Your task to perform on an android device: Do I have any events tomorrow? Image 0: 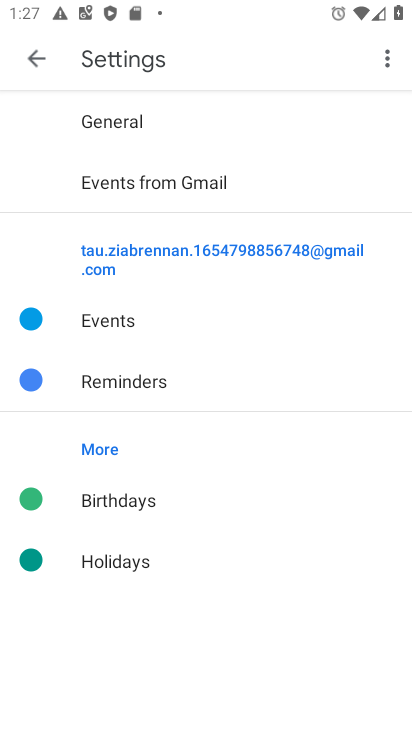
Step 0: press home button
Your task to perform on an android device: Do I have any events tomorrow? Image 1: 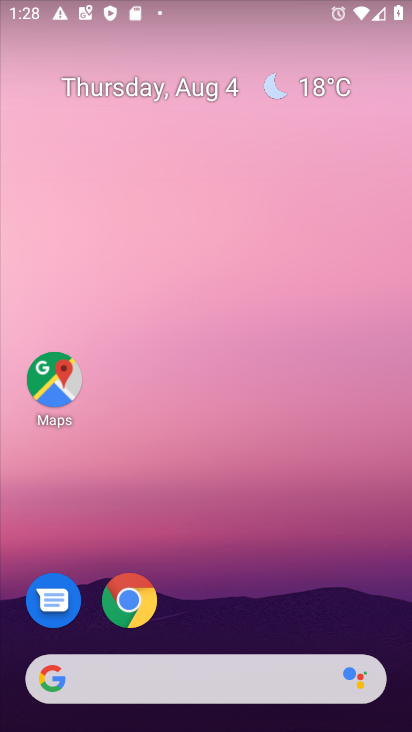
Step 1: drag from (152, 662) to (282, 154)
Your task to perform on an android device: Do I have any events tomorrow? Image 2: 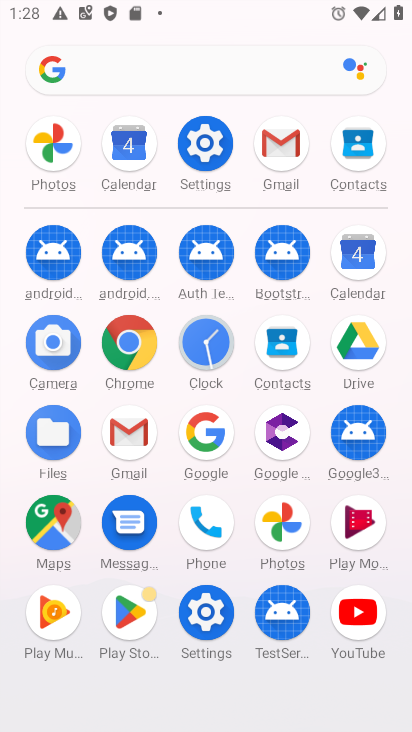
Step 2: click (358, 253)
Your task to perform on an android device: Do I have any events tomorrow? Image 3: 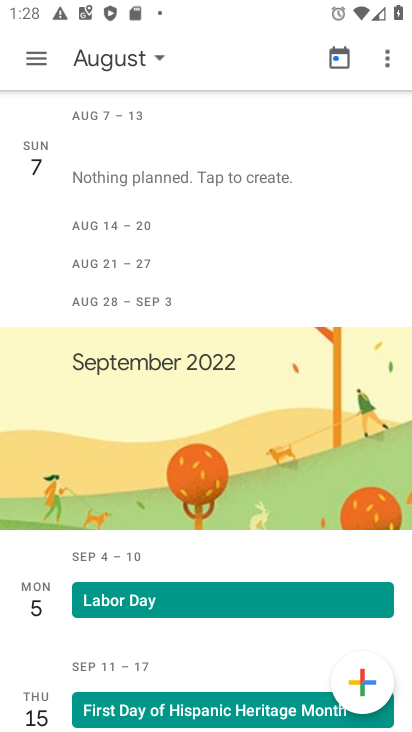
Step 3: click (104, 62)
Your task to perform on an android device: Do I have any events tomorrow? Image 4: 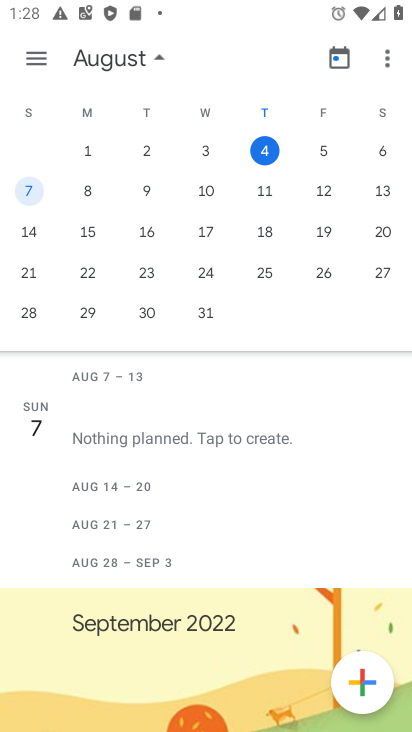
Step 4: click (324, 147)
Your task to perform on an android device: Do I have any events tomorrow? Image 5: 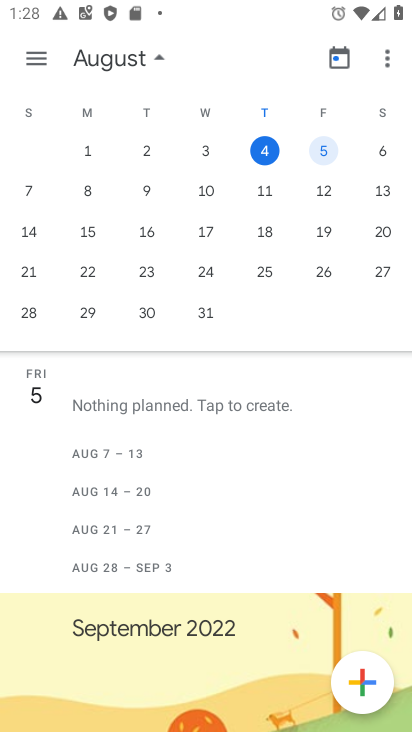
Step 5: click (36, 52)
Your task to perform on an android device: Do I have any events tomorrow? Image 6: 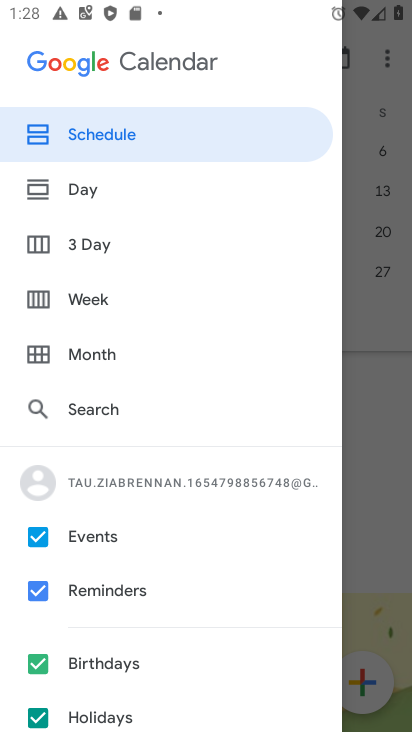
Step 6: click (69, 186)
Your task to perform on an android device: Do I have any events tomorrow? Image 7: 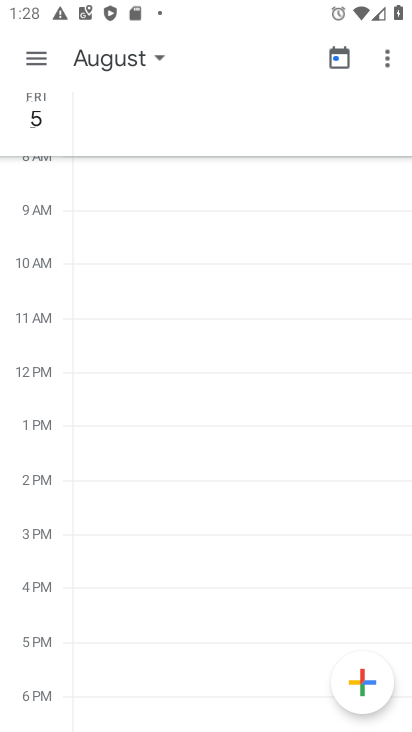
Step 7: click (36, 54)
Your task to perform on an android device: Do I have any events tomorrow? Image 8: 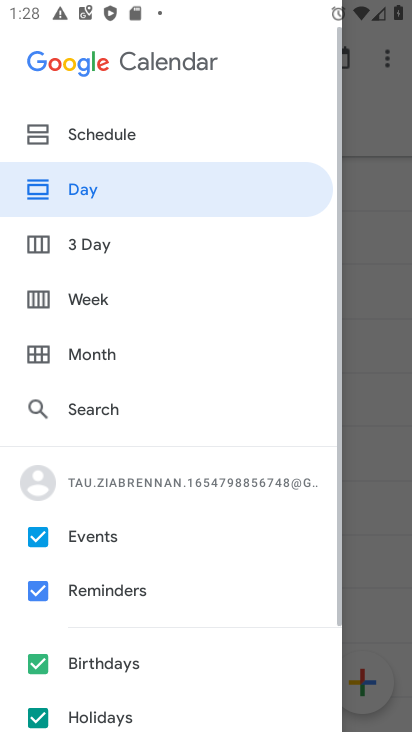
Step 8: click (108, 140)
Your task to perform on an android device: Do I have any events tomorrow? Image 9: 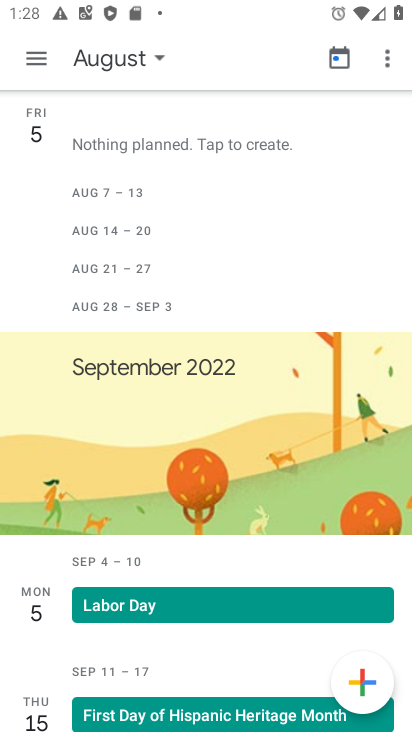
Step 9: task complete